Your task to perform on an android device: Search for "duracell triple a" on costco.com, select the first entry, and add it to the cart. Image 0: 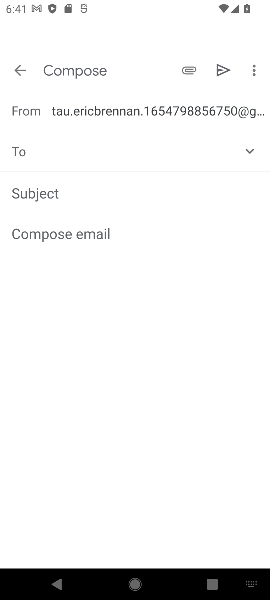
Step 0: press home button
Your task to perform on an android device: Search for "duracell triple a" on costco.com, select the first entry, and add it to the cart. Image 1: 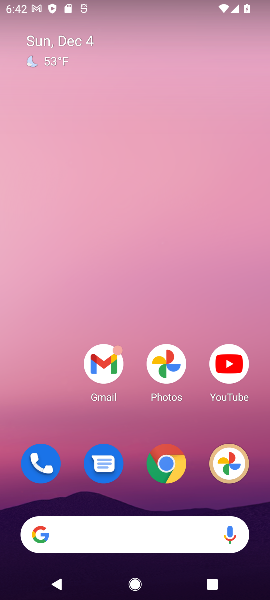
Step 1: click (108, 547)
Your task to perform on an android device: Search for "duracell triple a" on costco.com, select the first entry, and add it to the cart. Image 2: 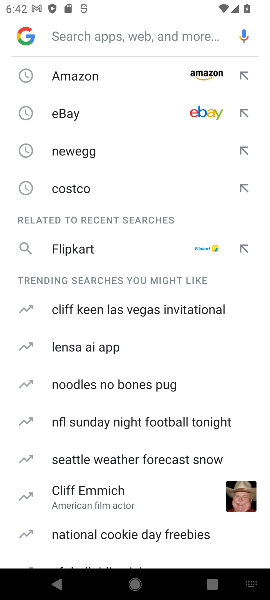
Step 2: task complete